Your task to perform on an android device: Do I have any events this weekend? Image 0: 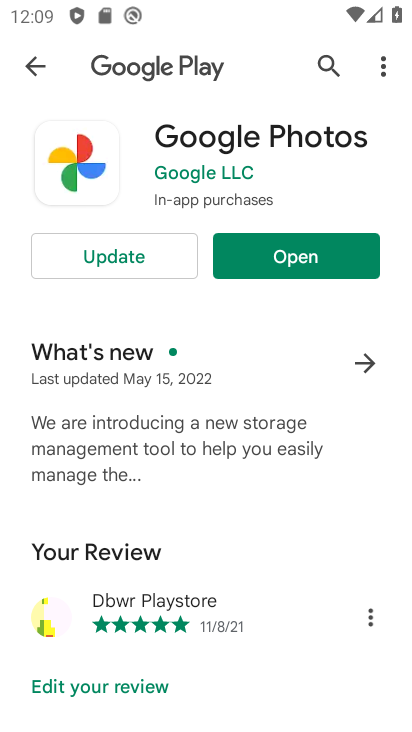
Step 0: press home button
Your task to perform on an android device: Do I have any events this weekend? Image 1: 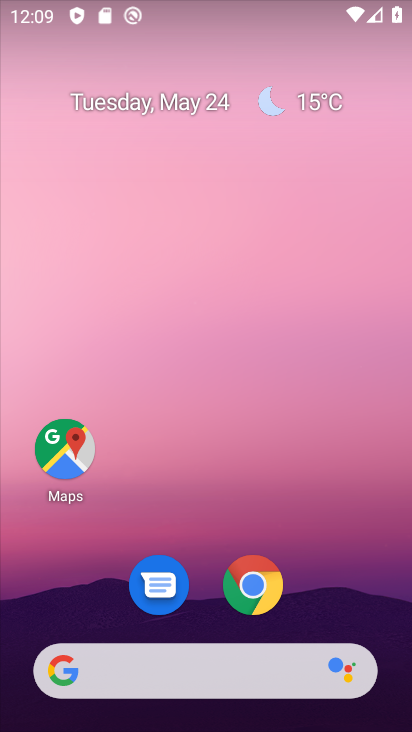
Step 1: drag from (217, 486) to (232, 6)
Your task to perform on an android device: Do I have any events this weekend? Image 2: 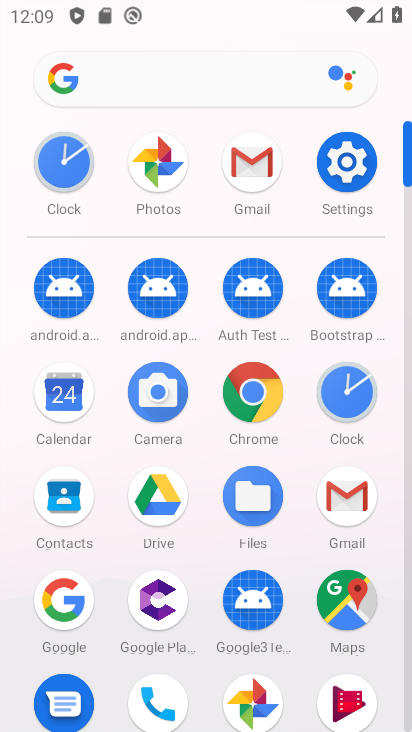
Step 2: click (72, 397)
Your task to perform on an android device: Do I have any events this weekend? Image 3: 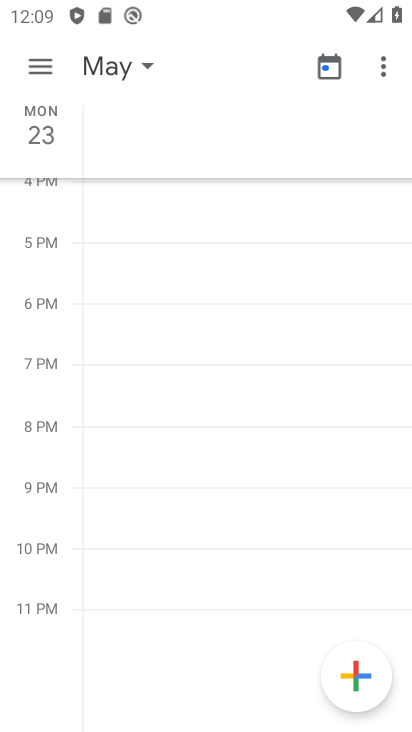
Step 3: click (41, 58)
Your task to perform on an android device: Do I have any events this weekend? Image 4: 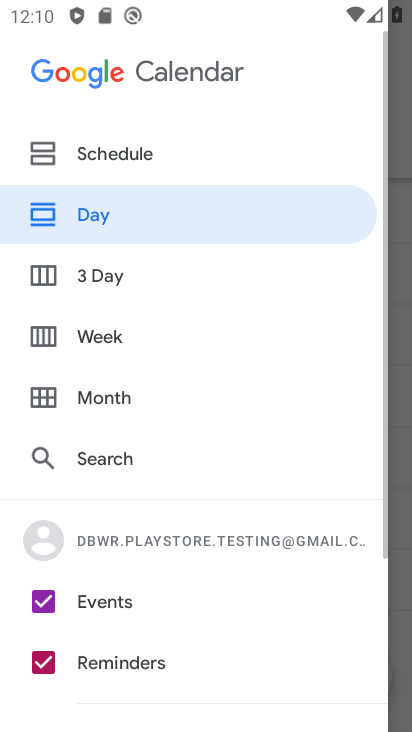
Step 4: click (49, 335)
Your task to perform on an android device: Do I have any events this weekend? Image 5: 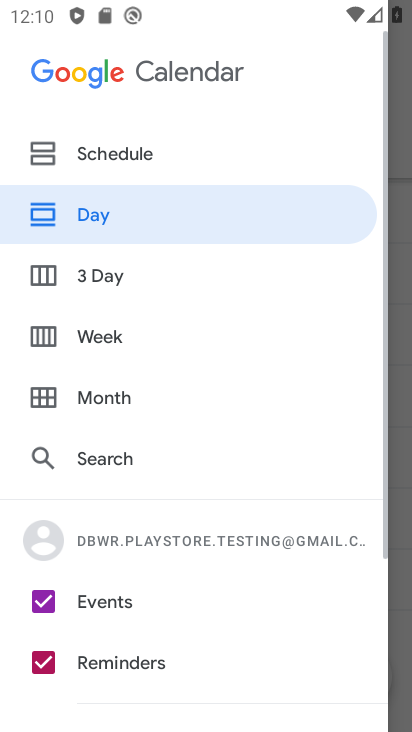
Step 5: click (49, 337)
Your task to perform on an android device: Do I have any events this weekend? Image 6: 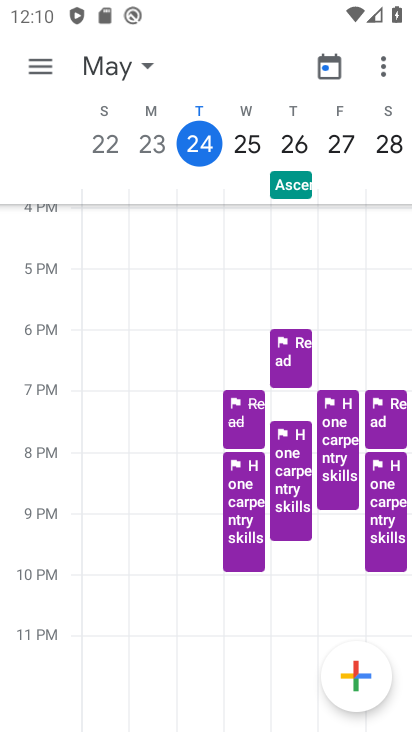
Step 6: click (383, 115)
Your task to perform on an android device: Do I have any events this weekend? Image 7: 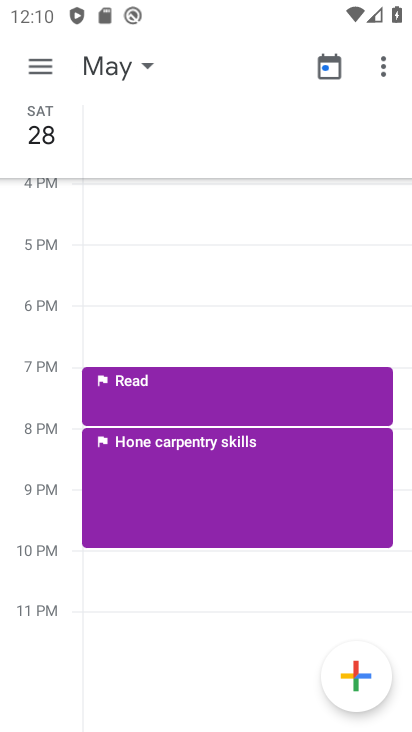
Step 7: click (45, 61)
Your task to perform on an android device: Do I have any events this weekend? Image 8: 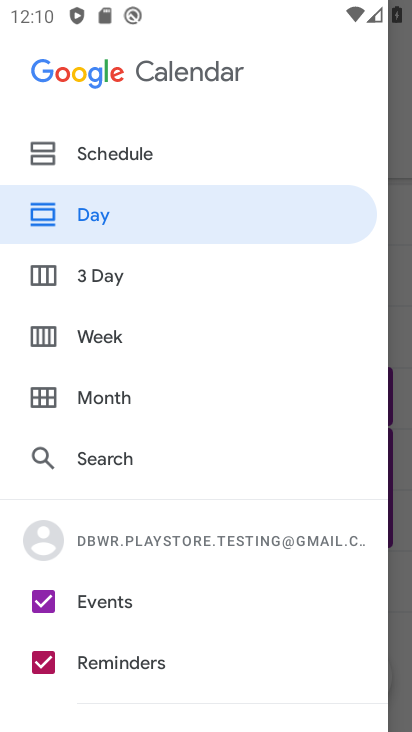
Step 8: click (75, 147)
Your task to perform on an android device: Do I have any events this weekend? Image 9: 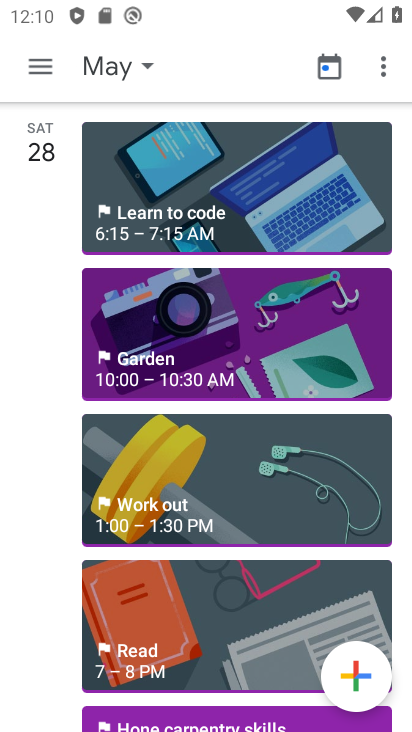
Step 9: task complete